Your task to perform on an android device: refresh tabs in the chrome app Image 0: 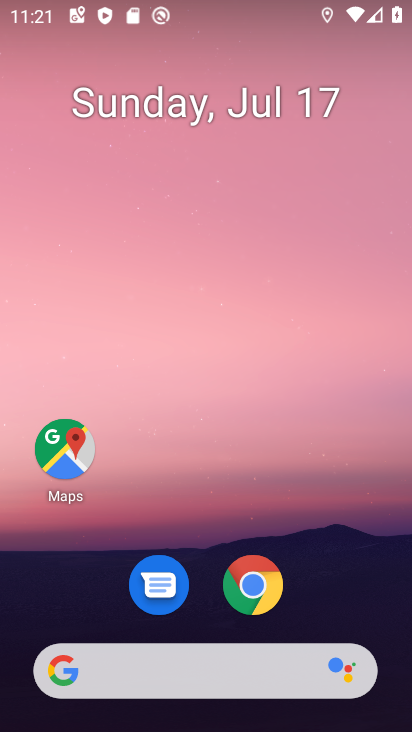
Step 0: drag from (246, 453) to (227, 19)
Your task to perform on an android device: refresh tabs in the chrome app Image 1: 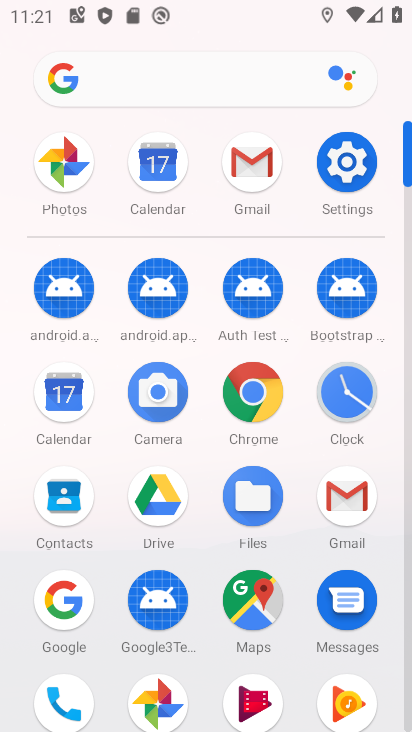
Step 1: click (249, 407)
Your task to perform on an android device: refresh tabs in the chrome app Image 2: 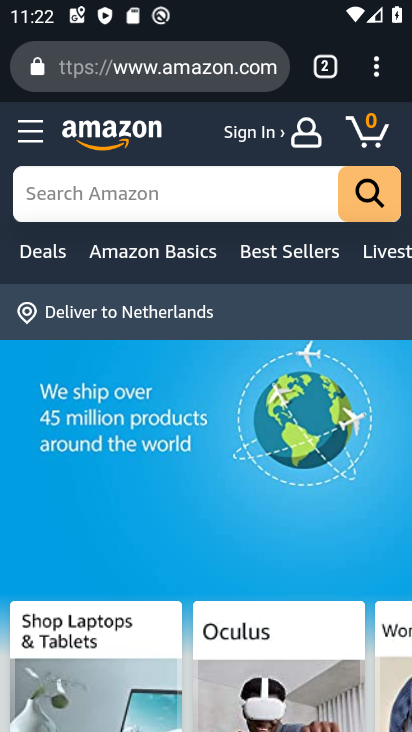
Step 2: click (370, 75)
Your task to perform on an android device: refresh tabs in the chrome app Image 3: 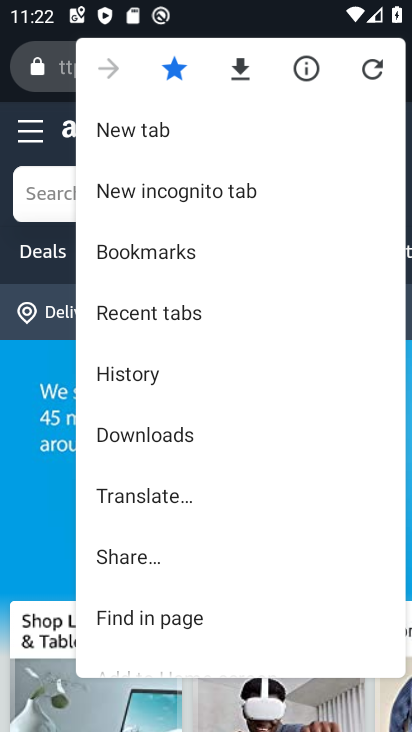
Step 3: click (376, 72)
Your task to perform on an android device: refresh tabs in the chrome app Image 4: 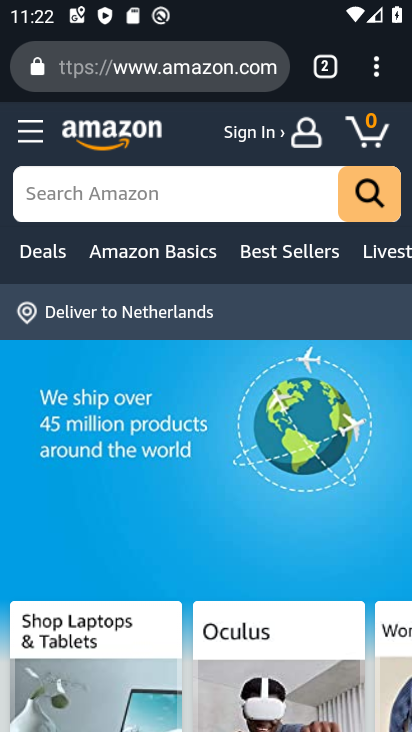
Step 4: task complete